Your task to perform on an android device: change alarm snooze length Image 0: 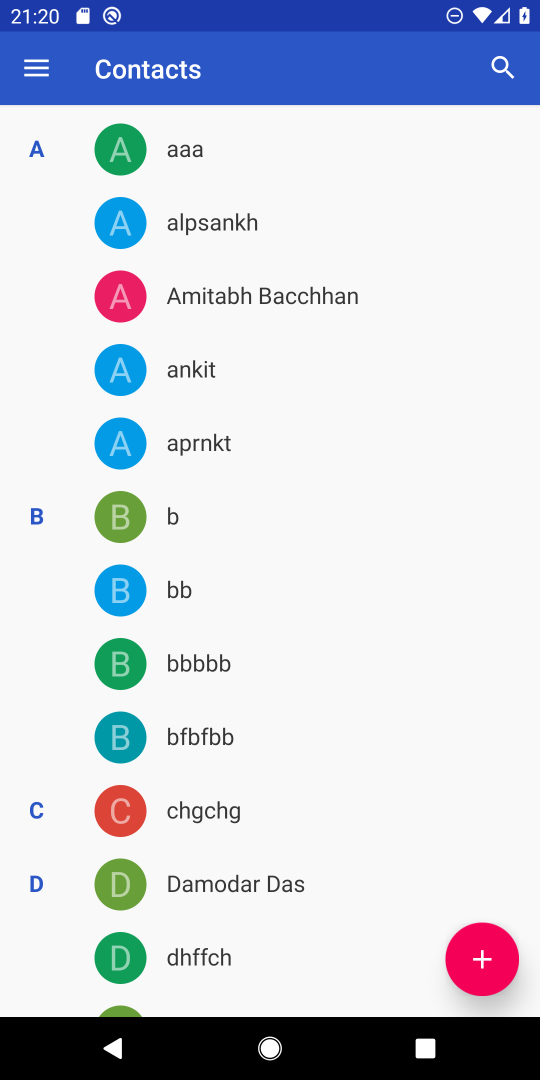
Step 0: press home button
Your task to perform on an android device: change alarm snooze length Image 1: 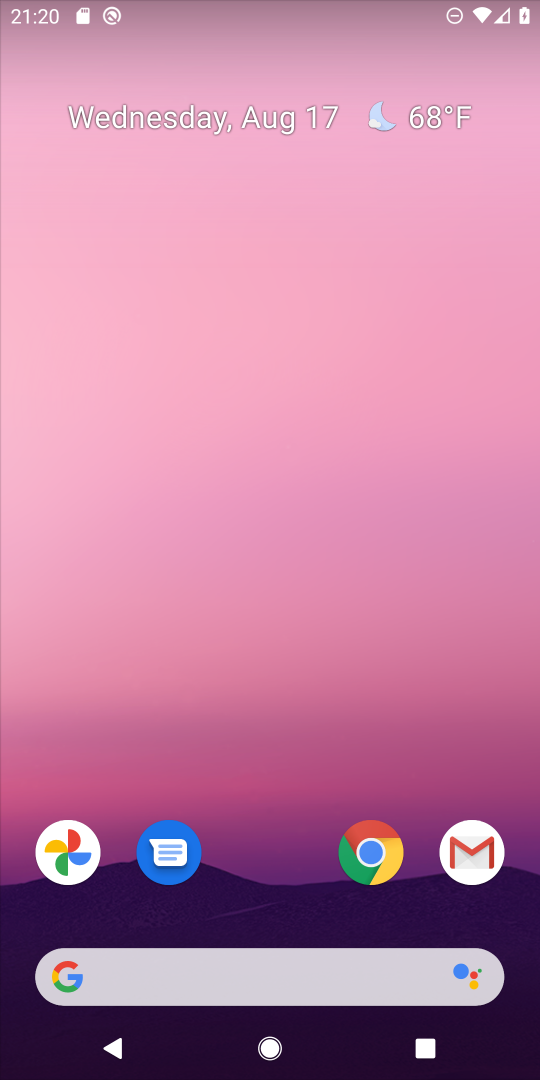
Step 1: drag from (254, 900) to (230, 429)
Your task to perform on an android device: change alarm snooze length Image 2: 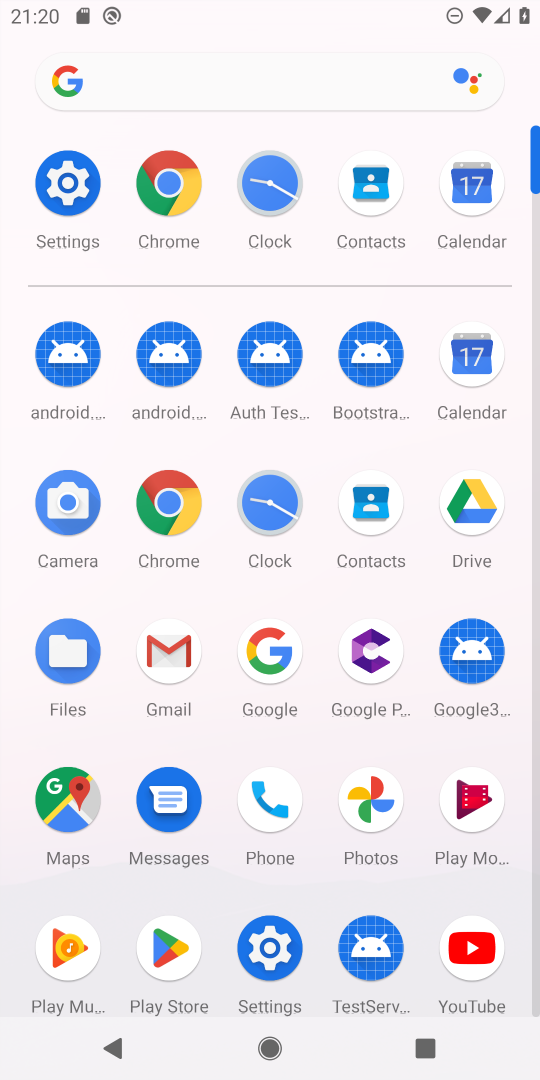
Step 2: click (267, 193)
Your task to perform on an android device: change alarm snooze length Image 3: 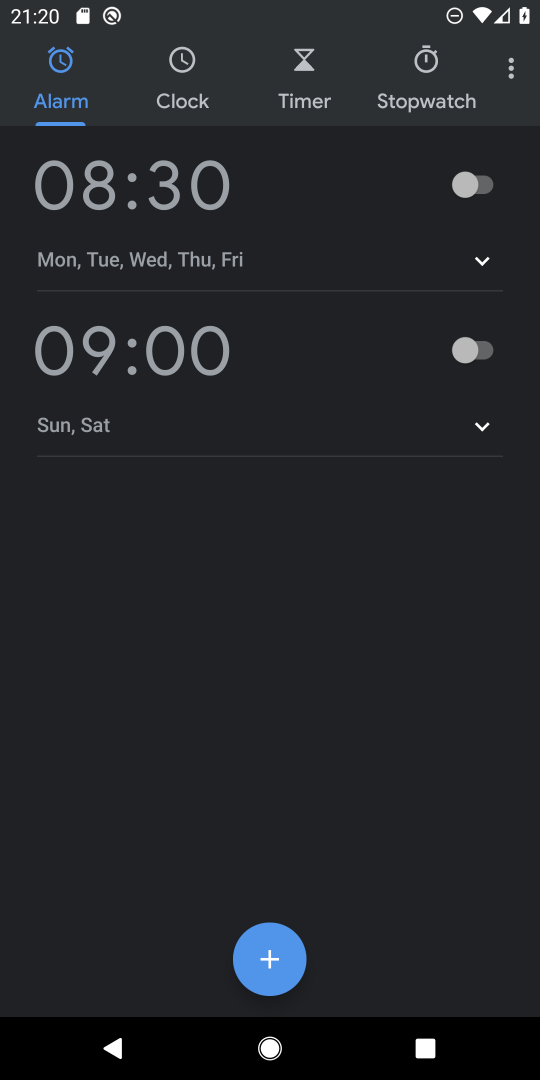
Step 3: click (514, 79)
Your task to perform on an android device: change alarm snooze length Image 4: 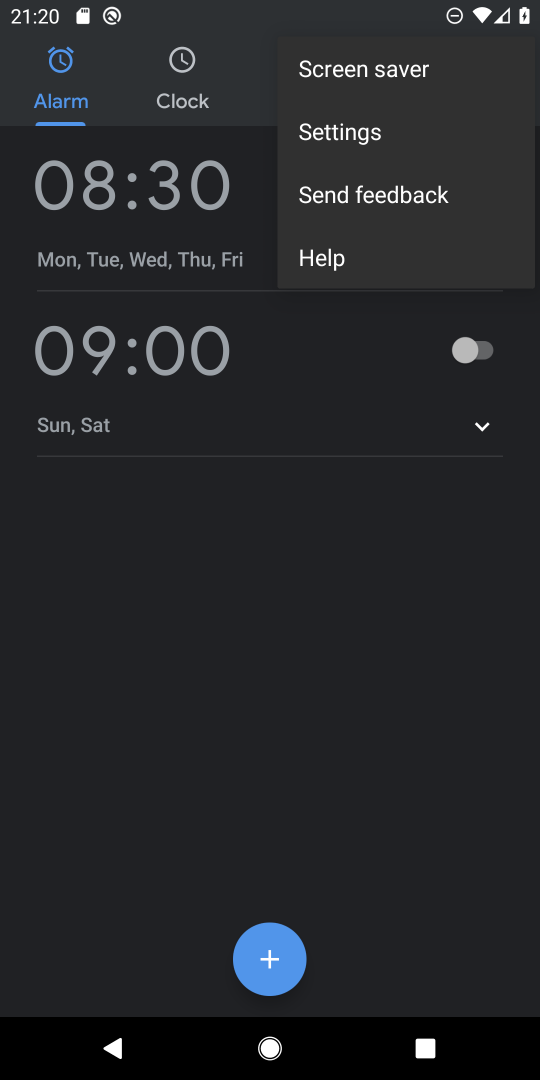
Step 4: click (357, 128)
Your task to perform on an android device: change alarm snooze length Image 5: 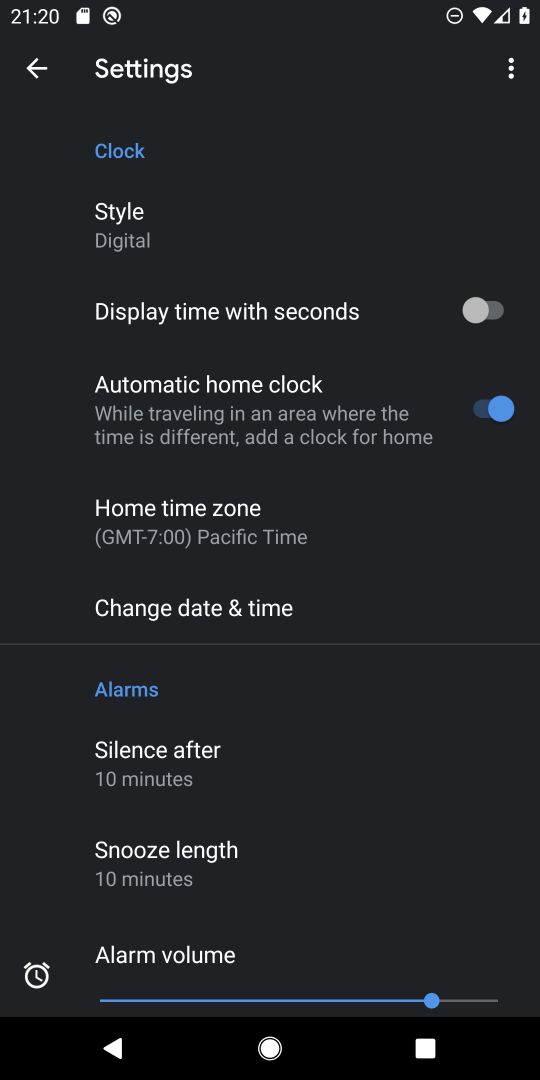
Step 5: click (173, 850)
Your task to perform on an android device: change alarm snooze length Image 6: 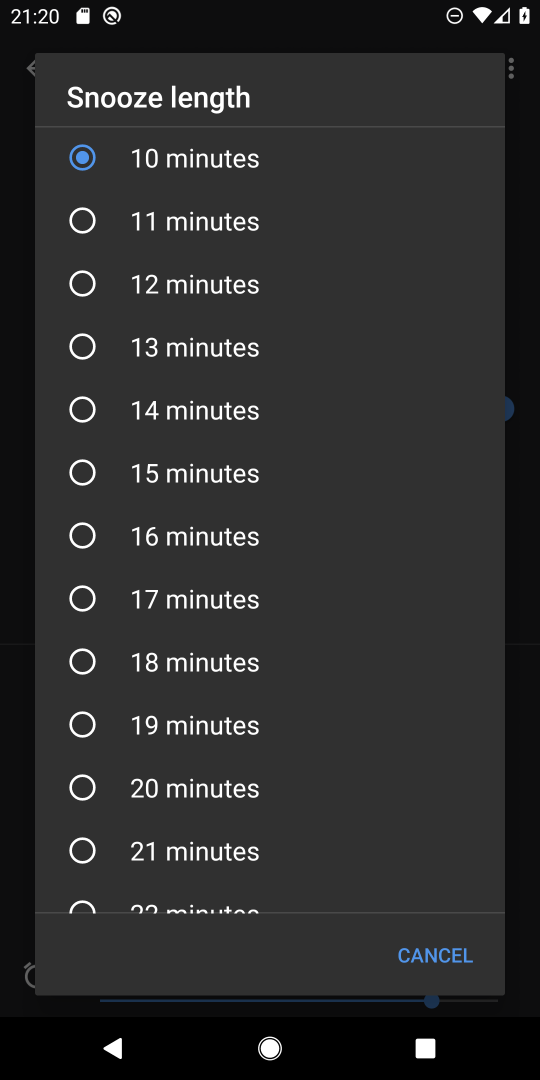
Step 6: click (75, 473)
Your task to perform on an android device: change alarm snooze length Image 7: 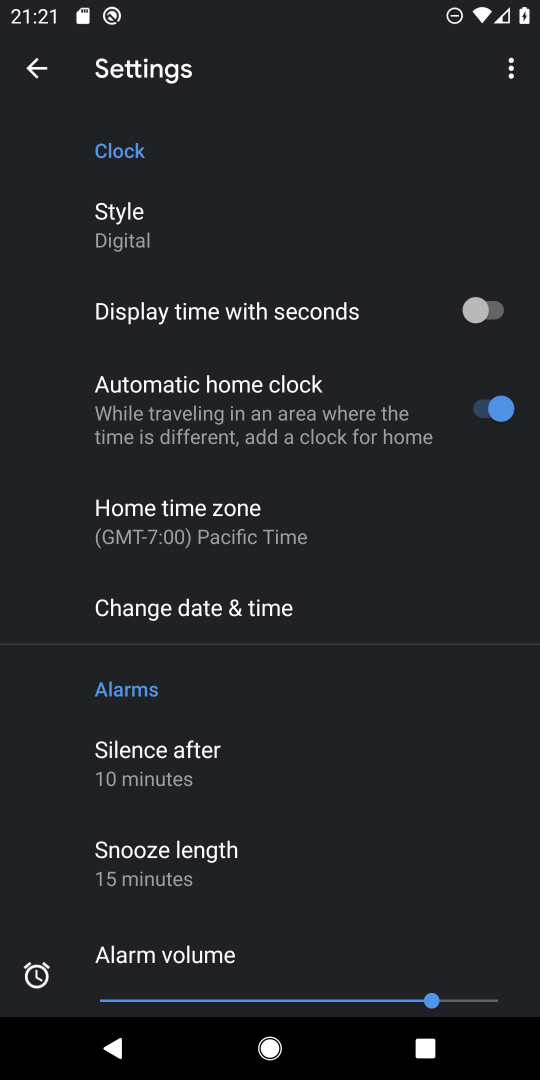
Step 7: task complete